Your task to perform on an android device: Go to Google maps Image 0: 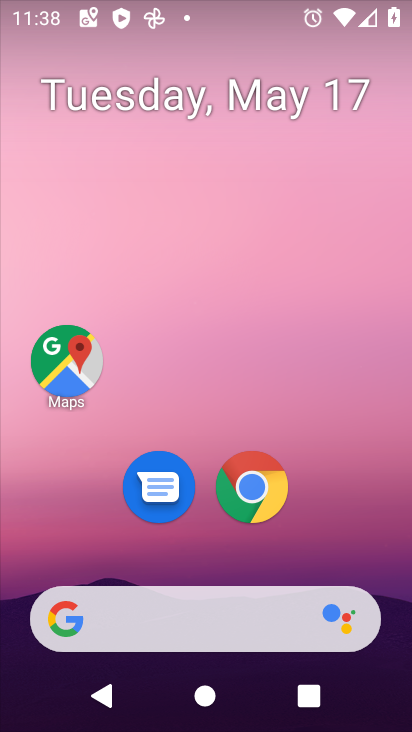
Step 0: press home button
Your task to perform on an android device: Go to Google maps Image 1: 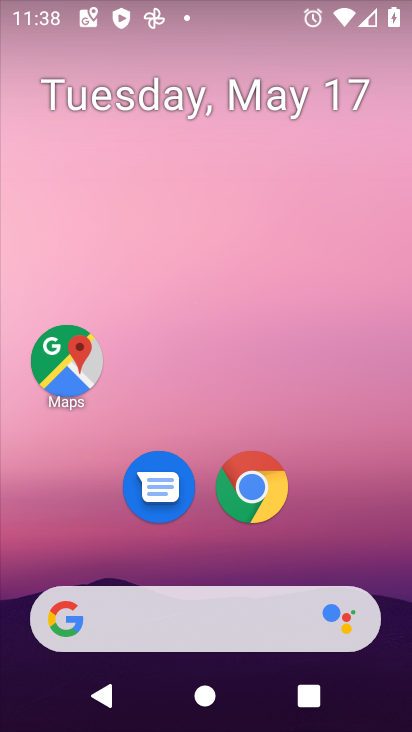
Step 1: click (63, 377)
Your task to perform on an android device: Go to Google maps Image 2: 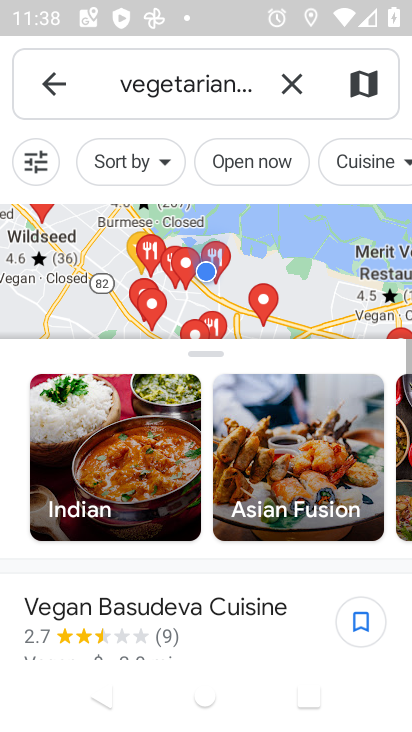
Step 2: task complete